Your task to perform on an android device: turn off airplane mode Image 0: 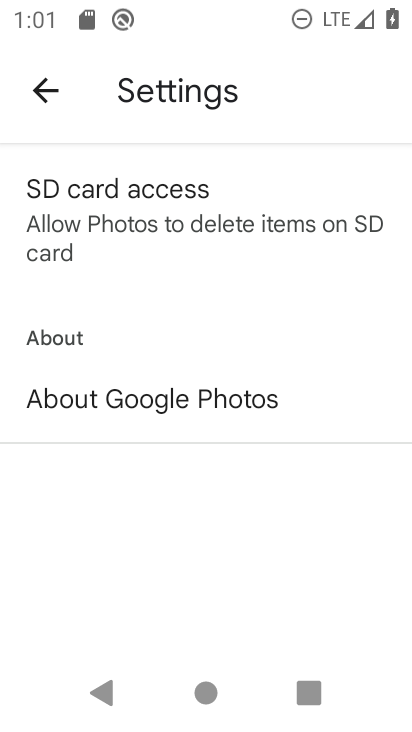
Step 0: press home button
Your task to perform on an android device: turn off airplane mode Image 1: 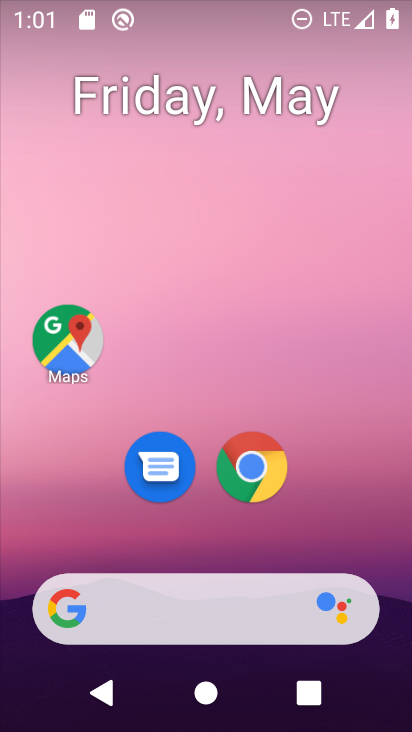
Step 1: drag from (335, 572) to (313, 1)
Your task to perform on an android device: turn off airplane mode Image 2: 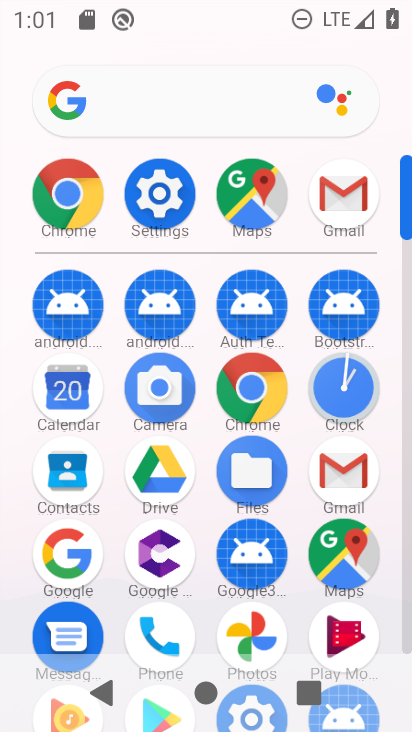
Step 2: click (181, 179)
Your task to perform on an android device: turn off airplane mode Image 3: 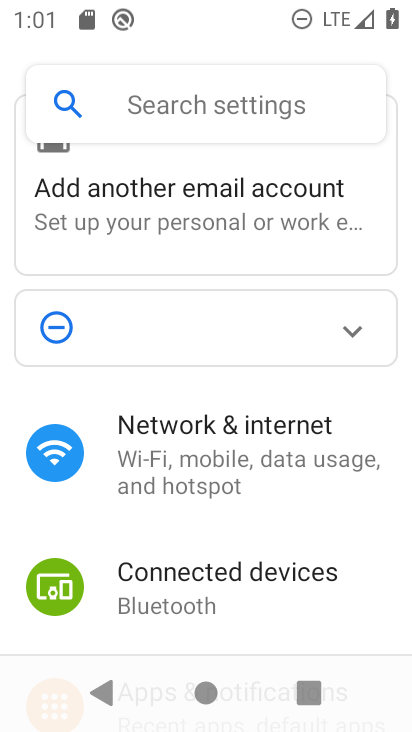
Step 3: click (204, 451)
Your task to perform on an android device: turn off airplane mode Image 4: 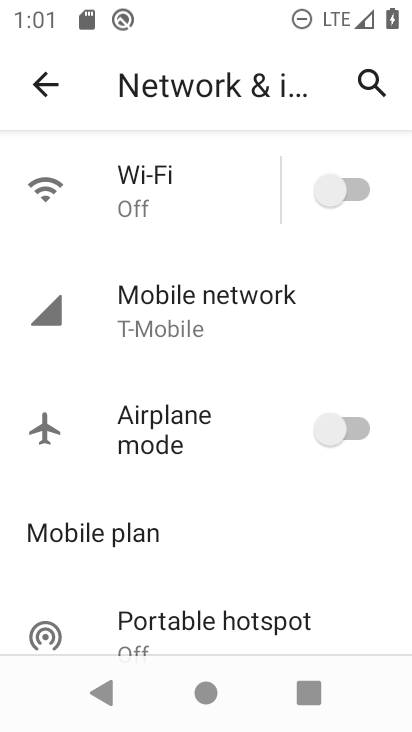
Step 4: task complete